Your task to perform on an android device: Search for vegetarian restaurants on Maps Image 0: 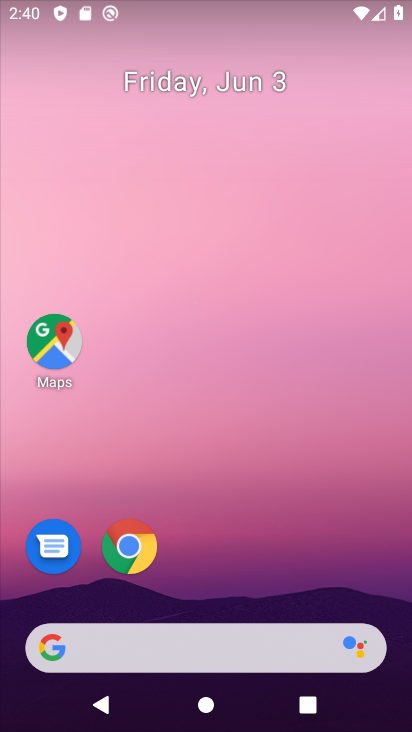
Step 0: click (40, 342)
Your task to perform on an android device: Search for vegetarian restaurants on Maps Image 1: 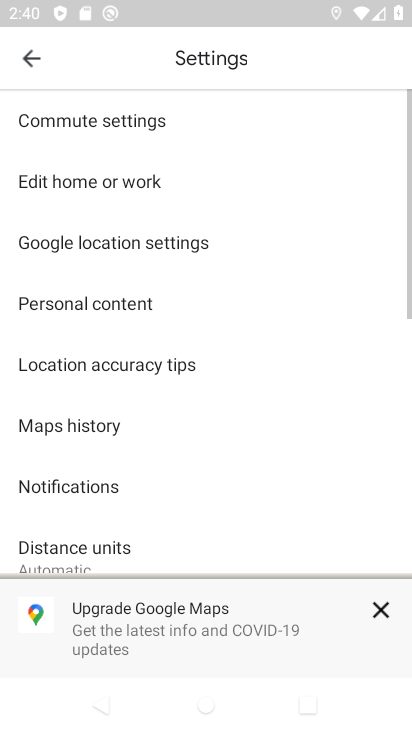
Step 1: click (23, 54)
Your task to perform on an android device: Search for vegetarian restaurants on Maps Image 2: 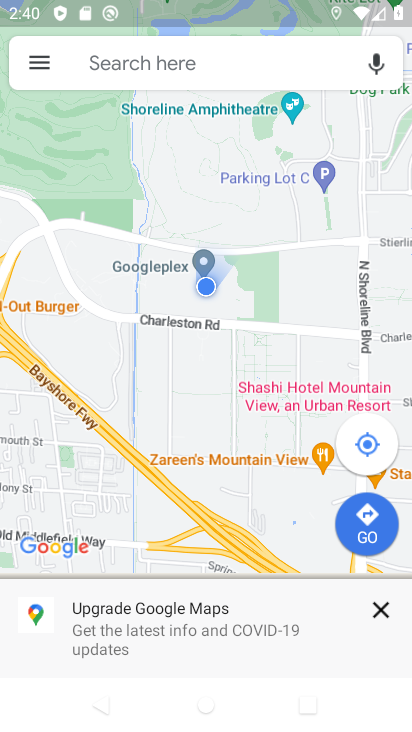
Step 2: click (196, 68)
Your task to perform on an android device: Search for vegetarian restaurants on Maps Image 3: 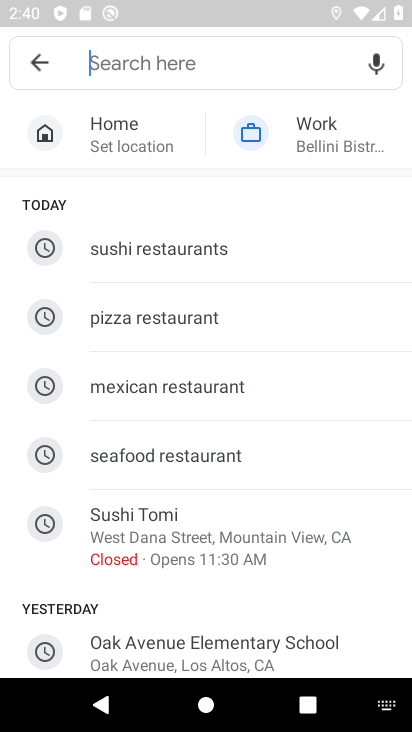
Step 3: type "vegetarian restaurants"
Your task to perform on an android device: Search for vegetarian restaurants on Maps Image 4: 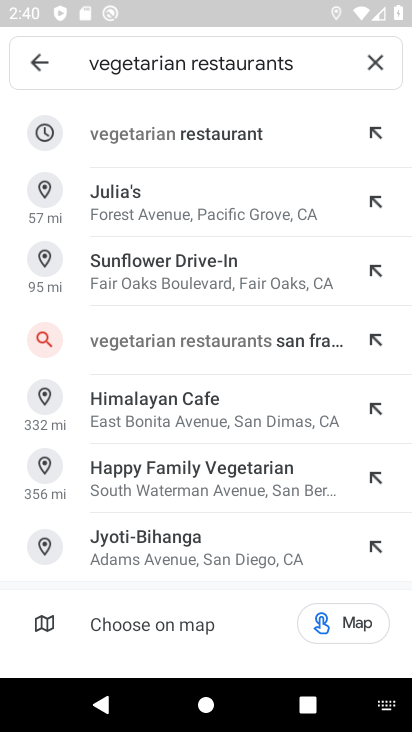
Step 4: click (226, 138)
Your task to perform on an android device: Search for vegetarian restaurants on Maps Image 5: 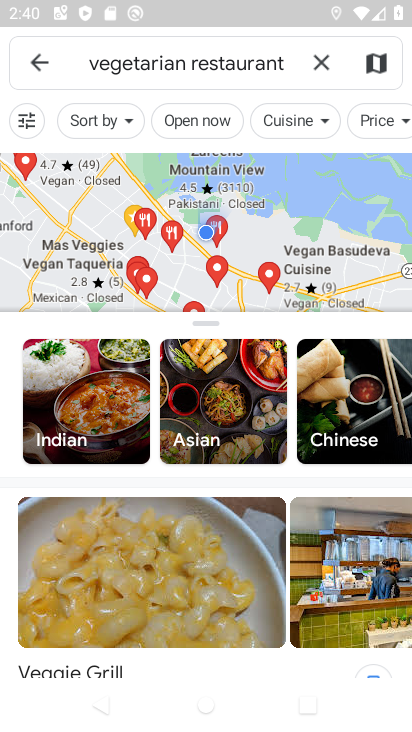
Step 5: task complete